Your task to perform on an android device: turn on bluetooth scan Image 0: 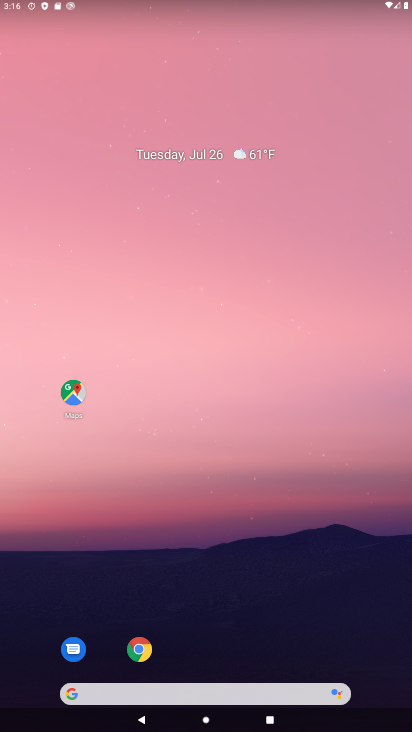
Step 0: click (252, 118)
Your task to perform on an android device: turn on bluetooth scan Image 1: 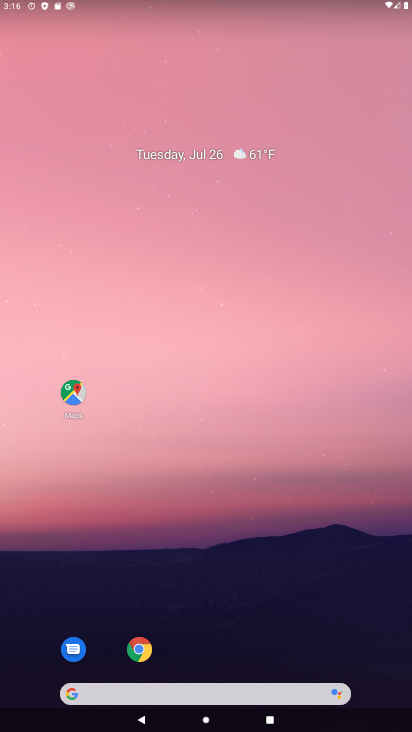
Step 1: click (242, 40)
Your task to perform on an android device: turn on bluetooth scan Image 2: 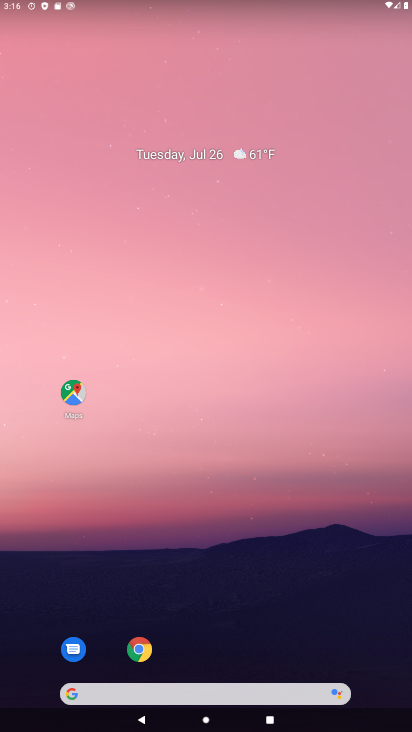
Step 2: drag from (44, 669) to (242, 102)
Your task to perform on an android device: turn on bluetooth scan Image 3: 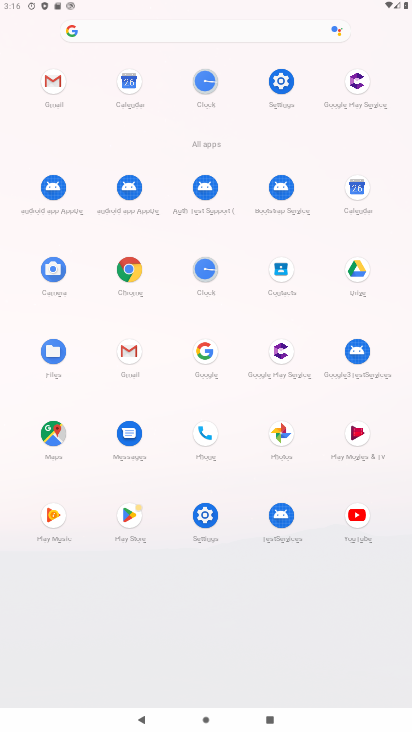
Step 3: click (201, 521)
Your task to perform on an android device: turn on bluetooth scan Image 4: 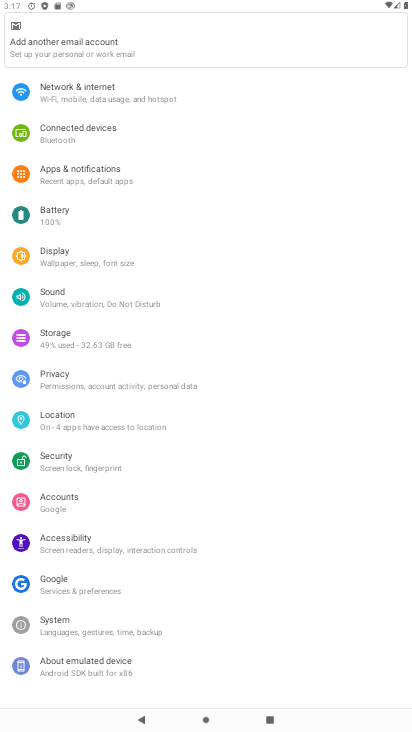
Step 4: click (69, 136)
Your task to perform on an android device: turn on bluetooth scan Image 5: 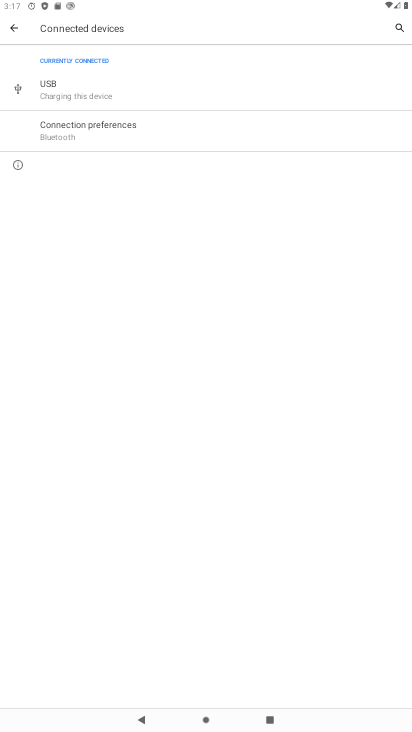
Step 5: click (68, 122)
Your task to perform on an android device: turn on bluetooth scan Image 6: 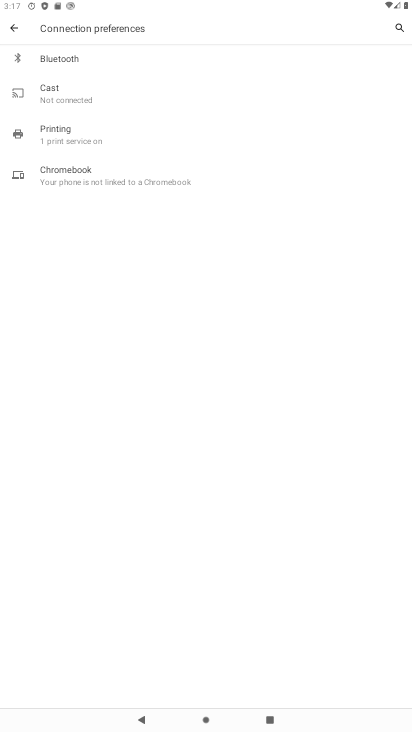
Step 6: click (48, 66)
Your task to perform on an android device: turn on bluetooth scan Image 7: 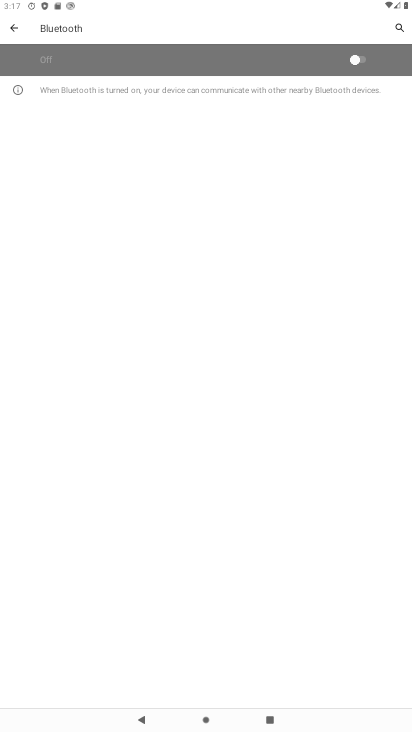
Step 7: task complete